Your task to perform on an android device: toggle show notifications on the lock screen Image 0: 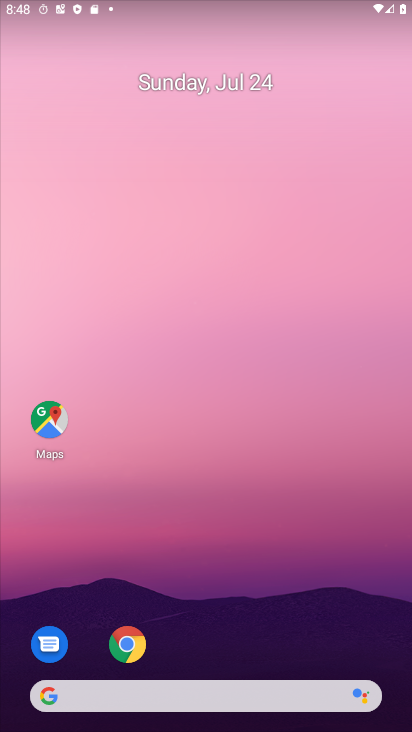
Step 0: drag from (190, 668) to (227, 59)
Your task to perform on an android device: toggle show notifications on the lock screen Image 1: 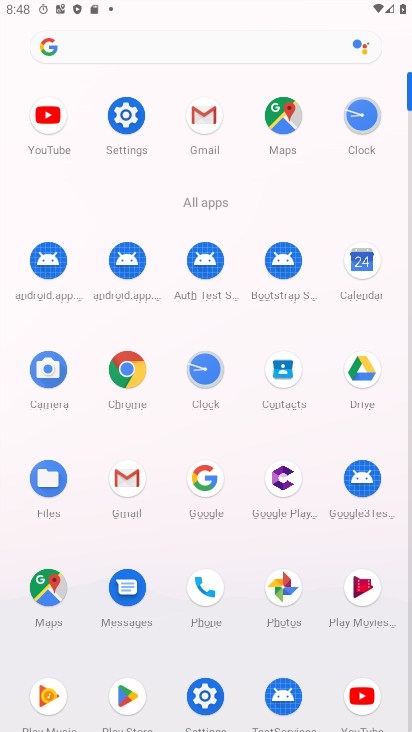
Step 1: click (126, 118)
Your task to perform on an android device: toggle show notifications on the lock screen Image 2: 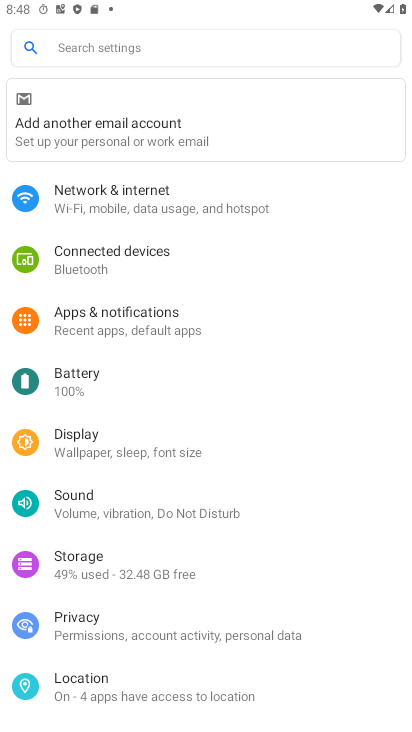
Step 2: click (181, 624)
Your task to perform on an android device: toggle show notifications on the lock screen Image 3: 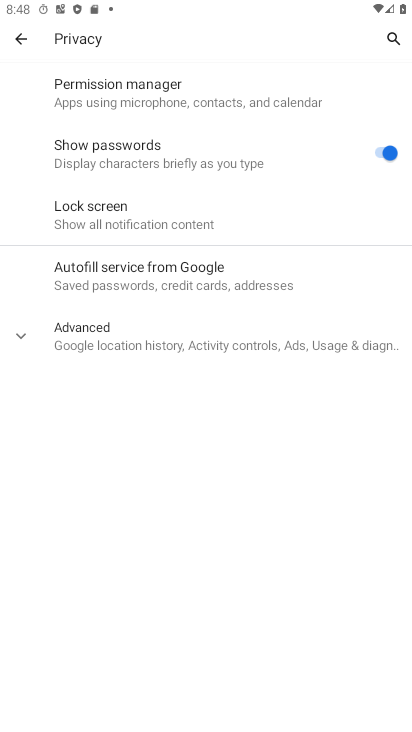
Step 3: click (86, 204)
Your task to perform on an android device: toggle show notifications on the lock screen Image 4: 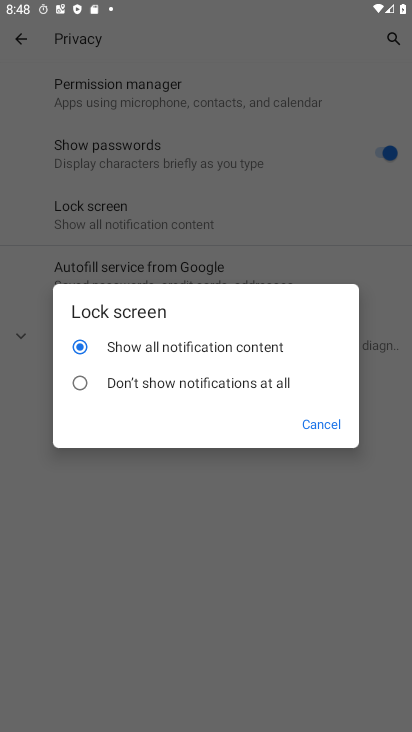
Step 4: click (129, 372)
Your task to perform on an android device: toggle show notifications on the lock screen Image 5: 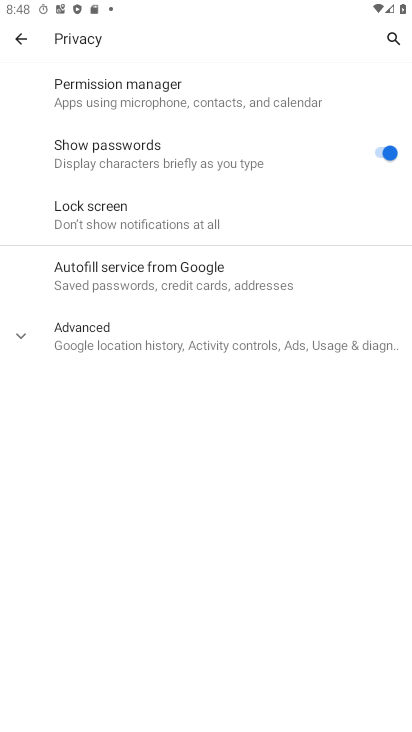
Step 5: task complete